Your task to perform on an android device: create a new album in the google photos Image 0: 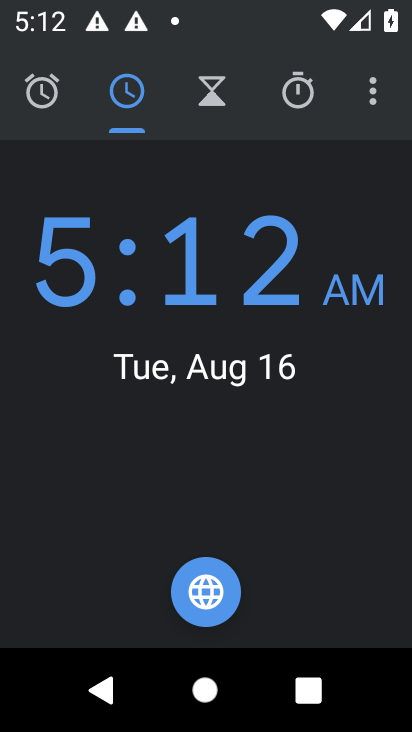
Step 0: press home button
Your task to perform on an android device: create a new album in the google photos Image 1: 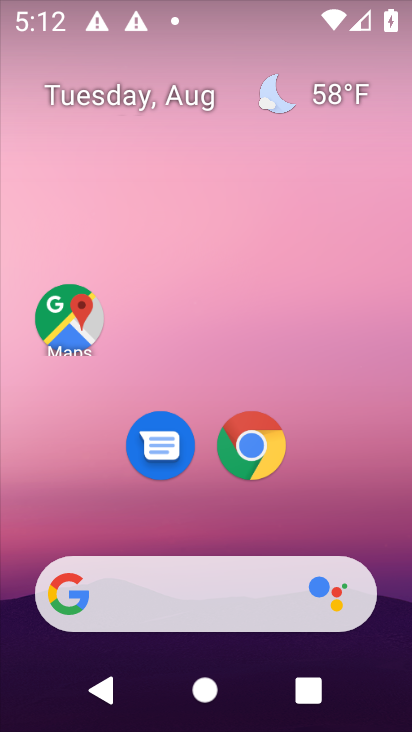
Step 1: drag from (206, 527) to (232, 24)
Your task to perform on an android device: create a new album in the google photos Image 2: 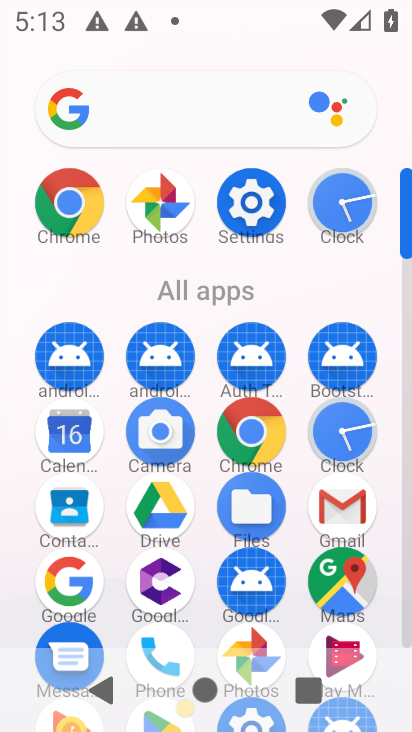
Step 2: click (259, 634)
Your task to perform on an android device: create a new album in the google photos Image 3: 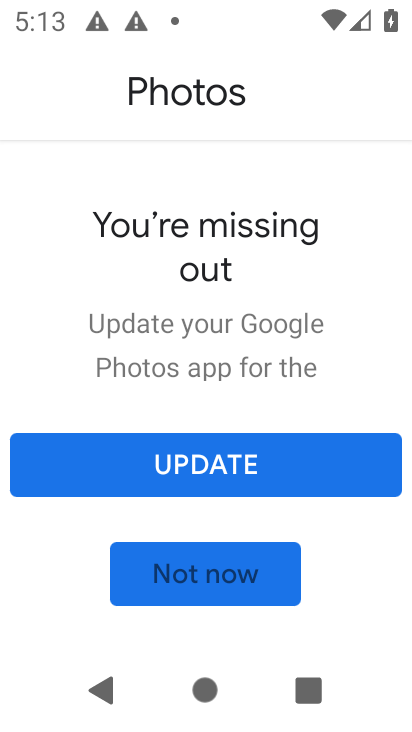
Step 3: click (198, 469)
Your task to perform on an android device: create a new album in the google photos Image 4: 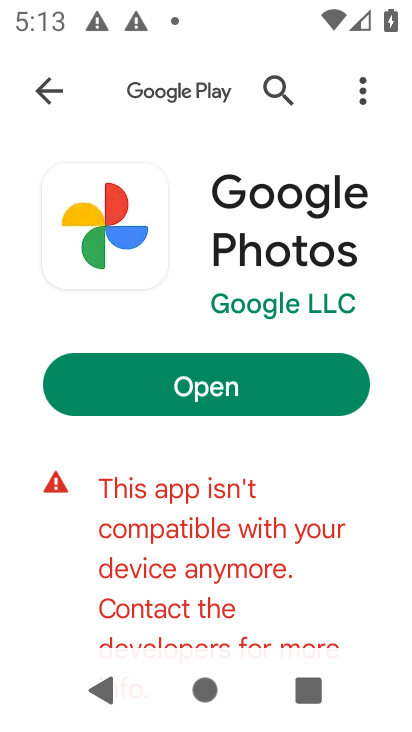
Step 4: task complete